Your task to perform on an android device: Go to Google Image 0: 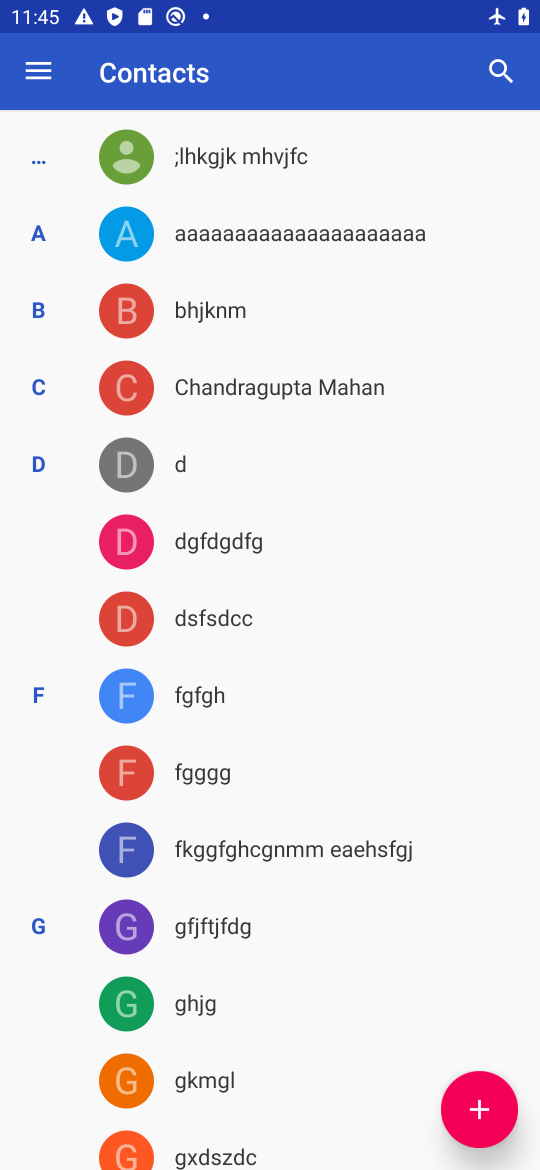
Step 0: press home button
Your task to perform on an android device: Go to Google Image 1: 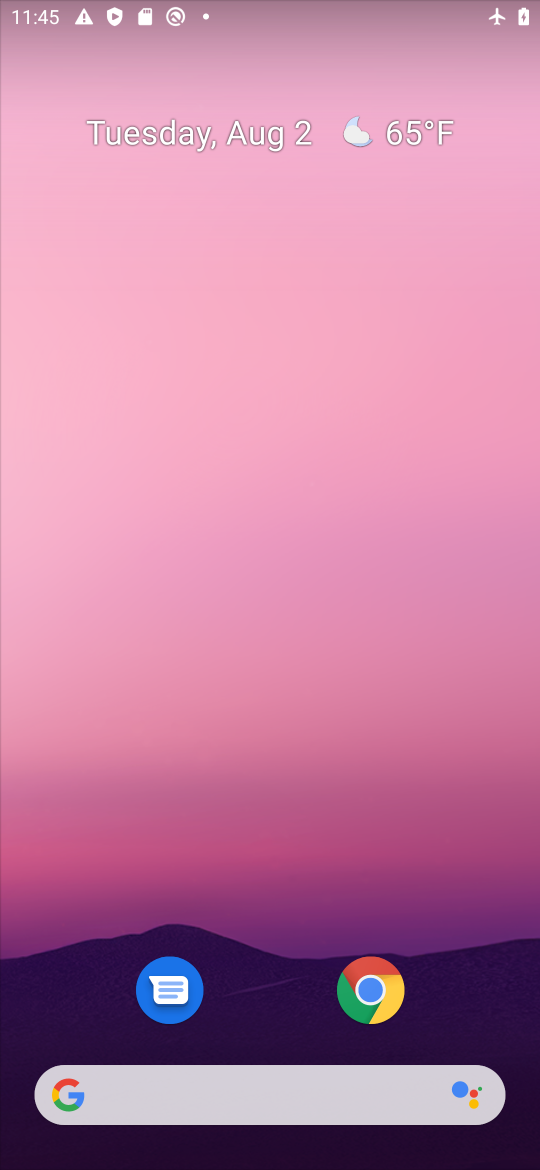
Step 1: click (53, 1107)
Your task to perform on an android device: Go to Google Image 2: 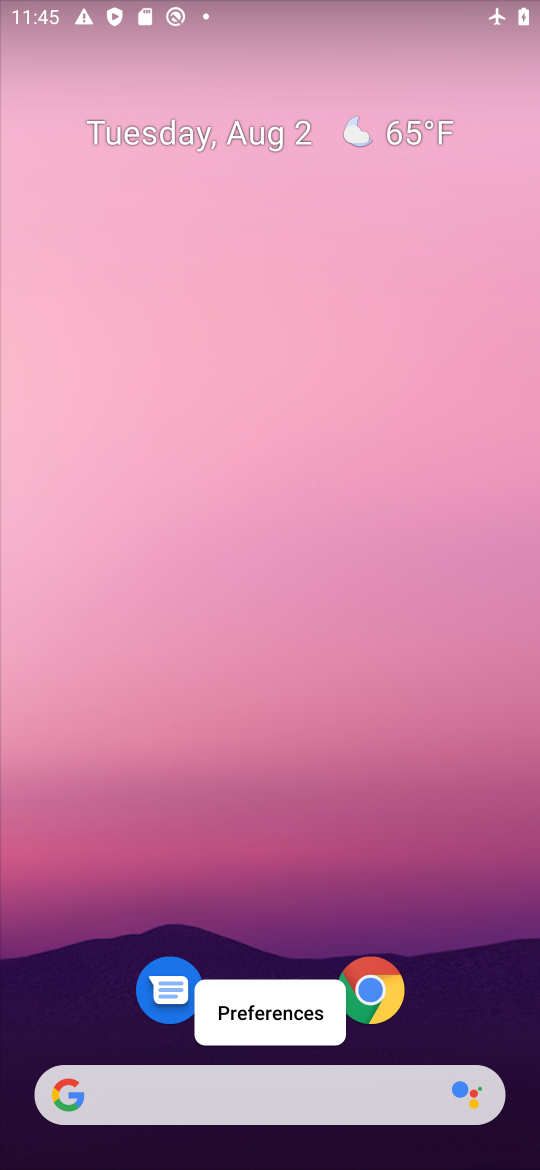
Step 2: click (68, 1099)
Your task to perform on an android device: Go to Google Image 3: 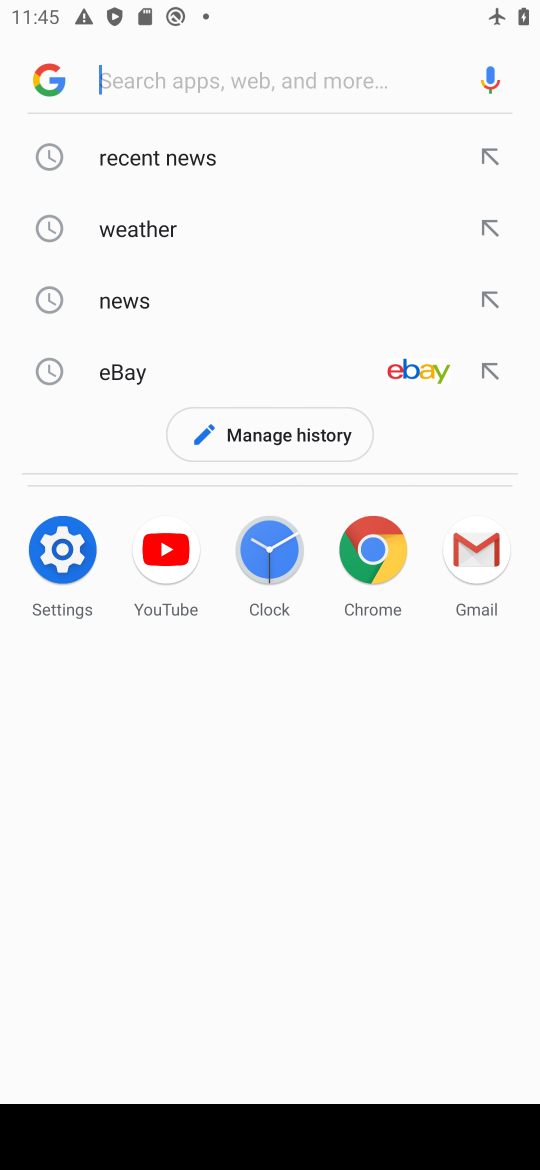
Step 3: click (38, 77)
Your task to perform on an android device: Go to Google Image 4: 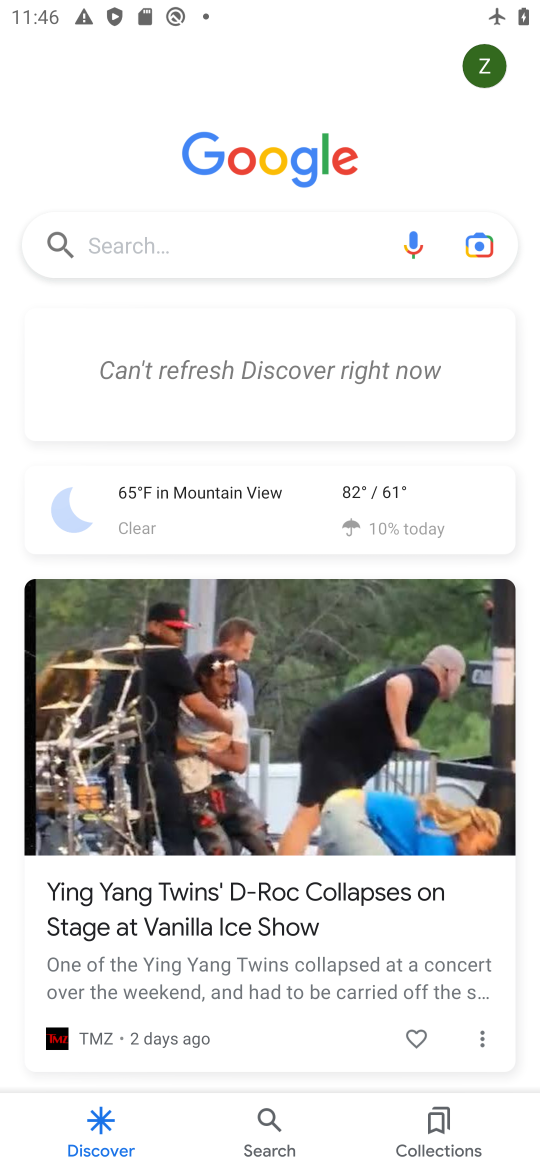
Step 4: task complete